Your task to perform on an android device: check google app version Image 0: 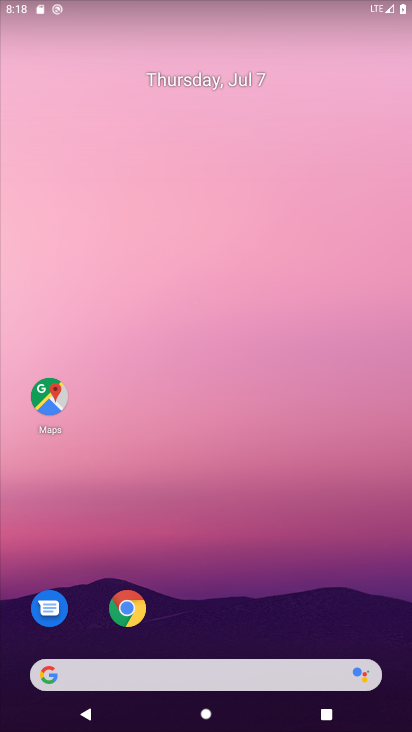
Step 0: drag from (338, 610) to (380, 111)
Your task to perform on an android device: check google app version Image 1: 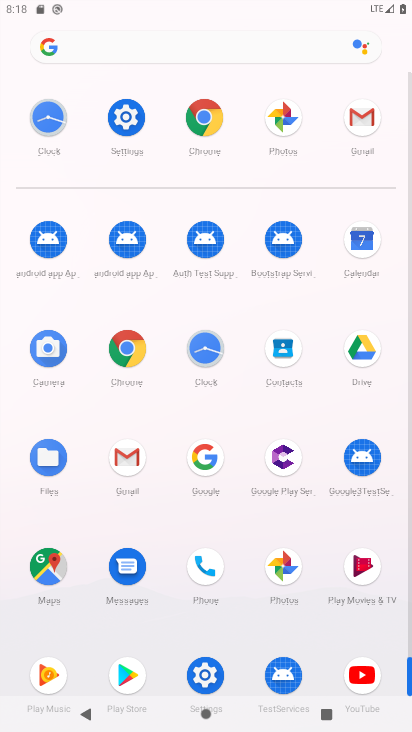
Step 1: click (207, 464)
Your task to perform on an android device: check google app version Image 2: 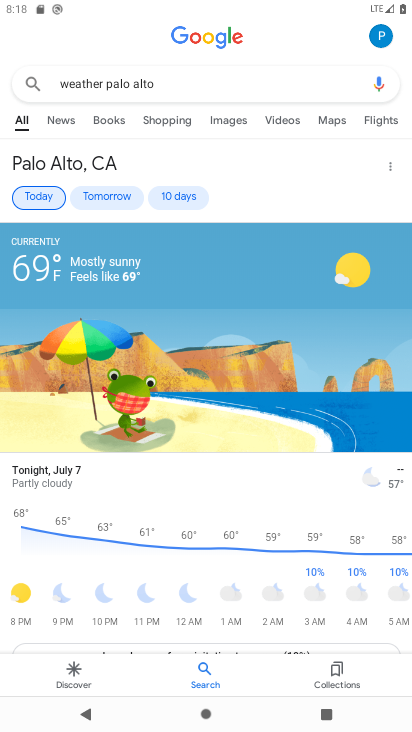
Step 2: click (383, 30)
Your task to perform on an android device: check google app version Image 3: 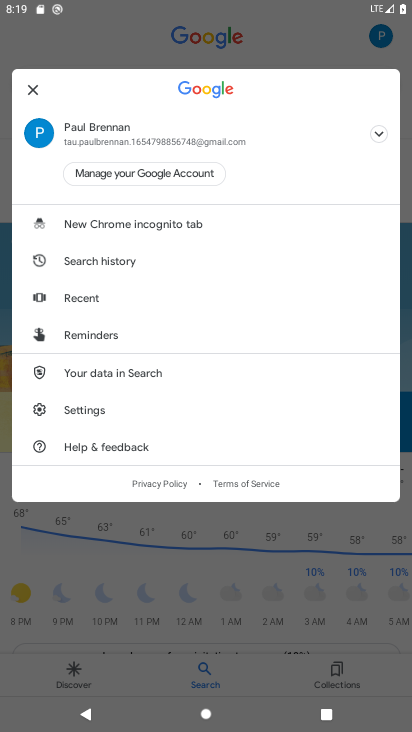
Step 3: click (110, 415)
Your task to perform on an android device: check google app version Image 4: 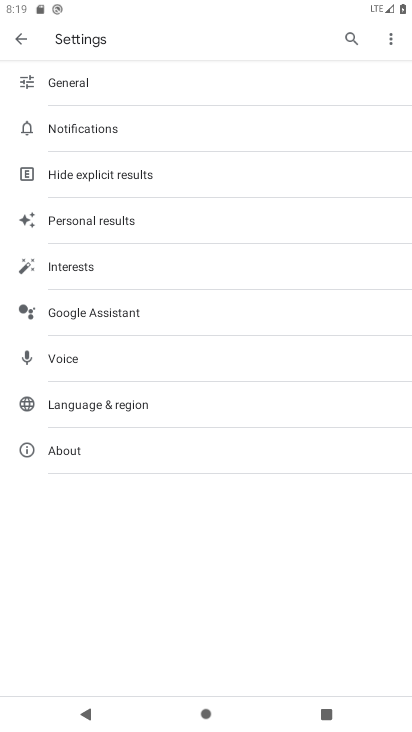
Step 4: click (98, 454)
Your task to perform on an android device: check google app version Image 5: 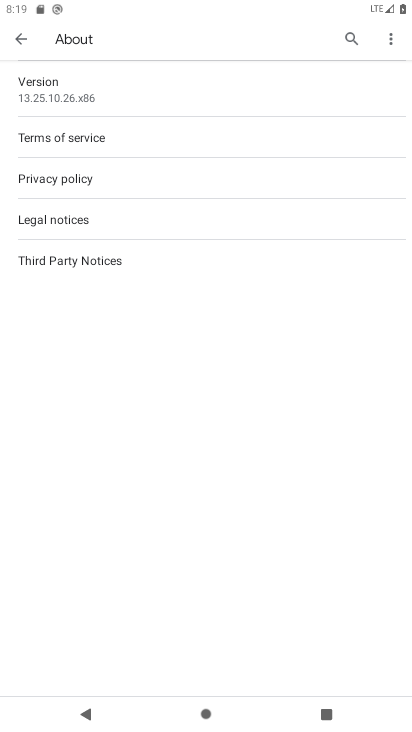
Step 5: task complete